Your task to perform on an android device: open device folders in google photos Image 0: 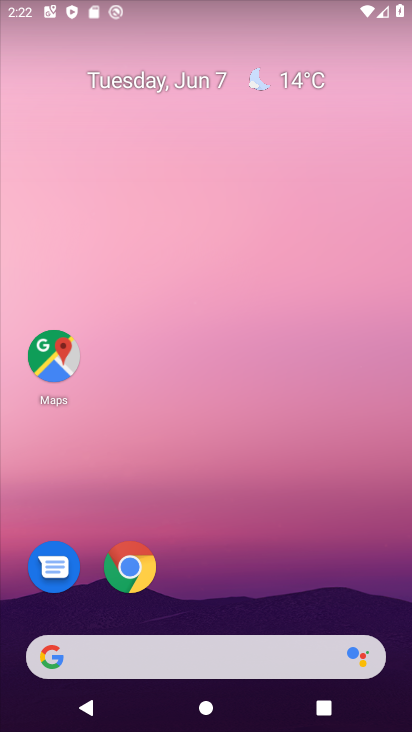
Step 0: drag from (193, 618) to (194, 183)
Your task to perform on an android device: open device folders in google photos Image 1: 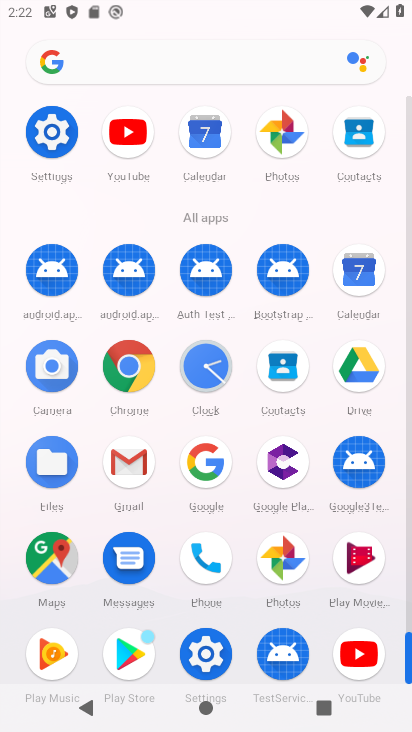
Step 1: click (263, 152)
Your task to perform on an android device: open device folders in google photos Image 2: 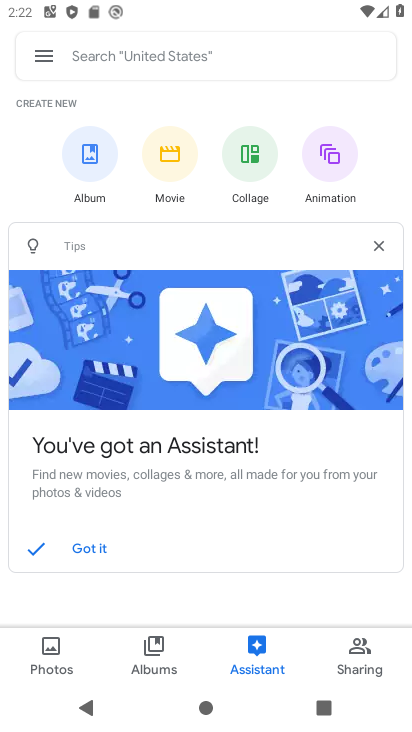
Step 2: click (41, 49)
Your task to perform on an android device: open device folders in google photos Image 3: 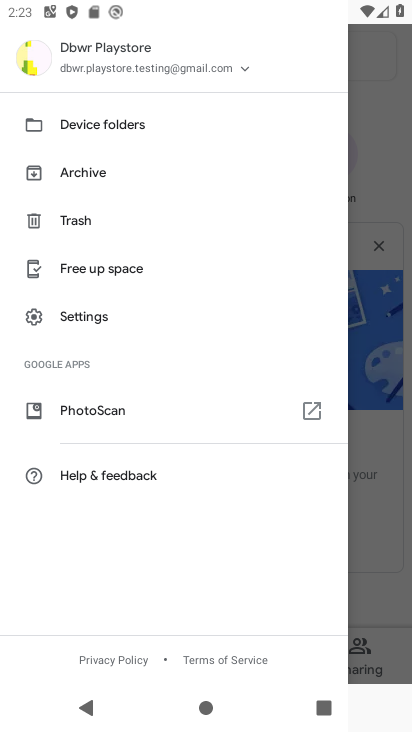
Step 3: drag from (126, 177) to (126, 494)
Your task to perform on an android device: open device folders in google photos Image 4: 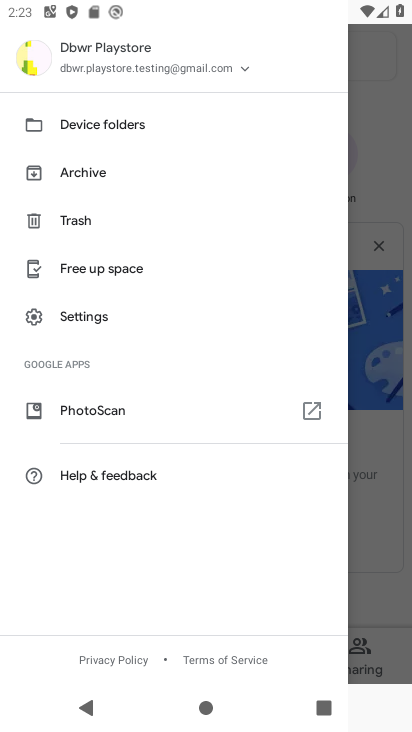
Step 4: click (83, 126)
Your task to perform on an android device: open device folders in google photos Image 5: 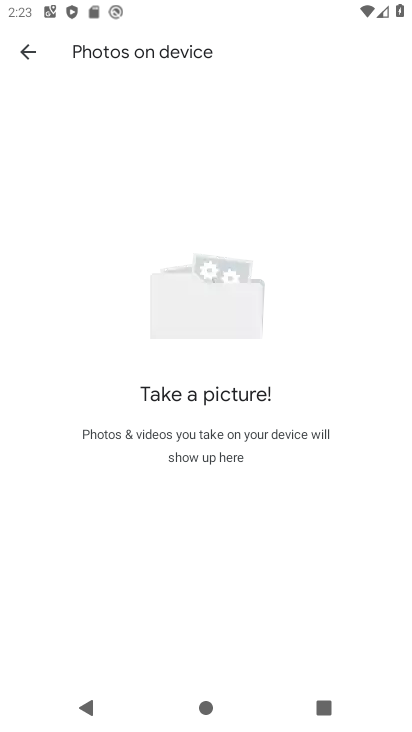
Step 5: task complete